Your task to perform on an android device: Go to Yahoo.com Image 0: 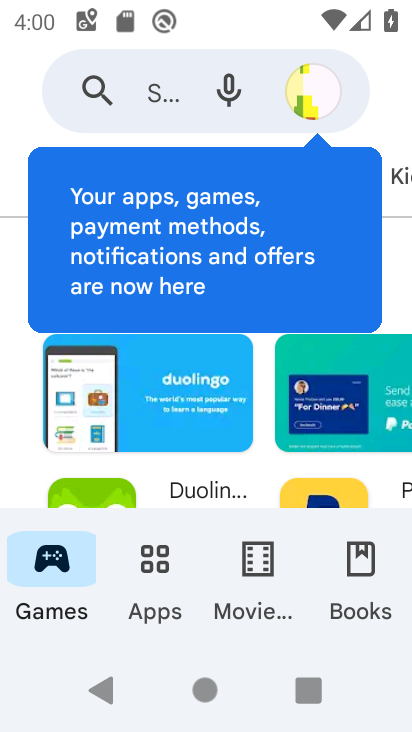
Step 0: press home button
Your task to perform on an android device: Go to Yahoo.com Image 1: 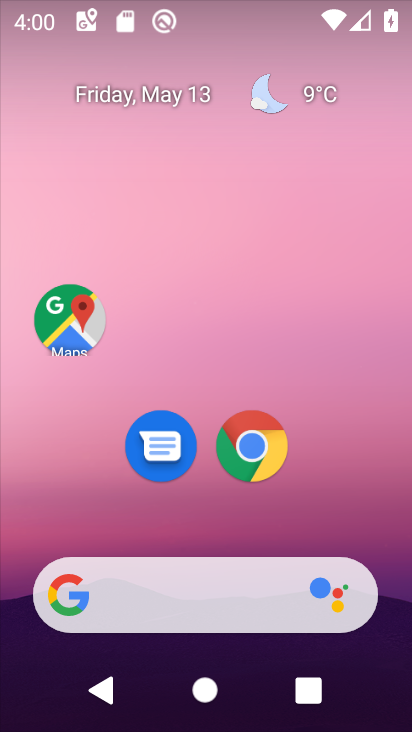
Step 1: click (266, 440)
Your task to perform on an android device: Go to Yahoo.com Image 2: 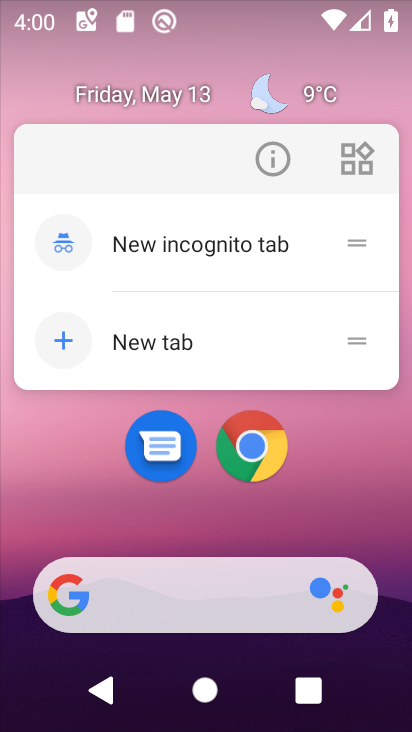
Step 2: click (232, 448)
Your task to perform on an android device: Go to Yahoo.com Image 3: 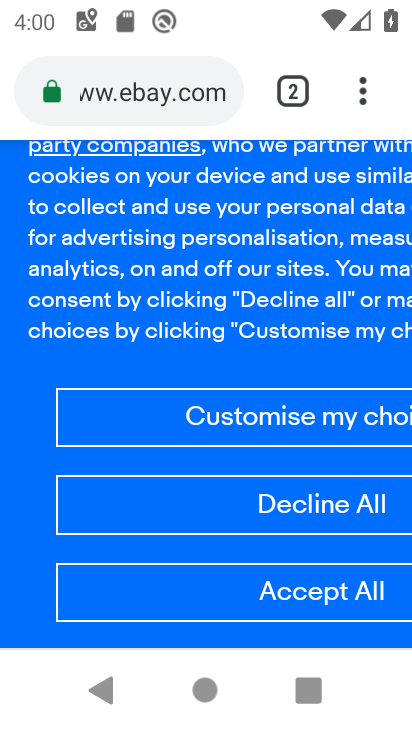
Step 3: click (131, 89)
Your task to perform on an android device: Go to Yahoo.com Image 4: 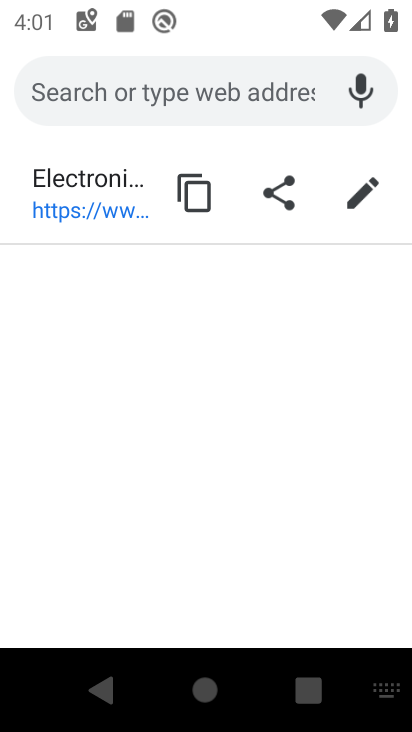
Step 4: type "yahoo.com"
Your task to perform on an android device: Go to Yahoo.com Image 5: 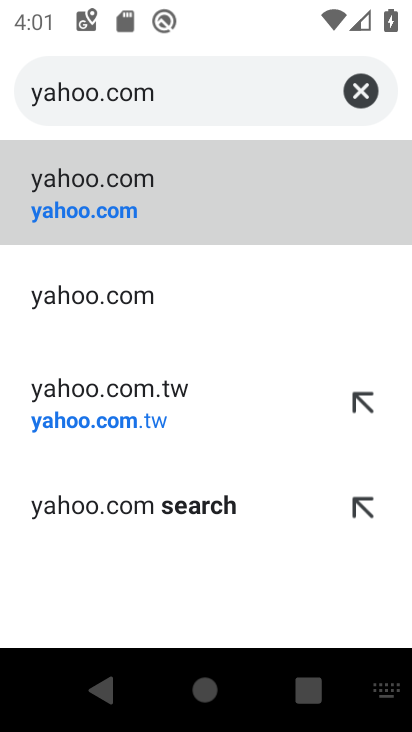
Step 5: click (57, 211)
Your task to perform on an android device: Go to Yahoo.com Image 6: 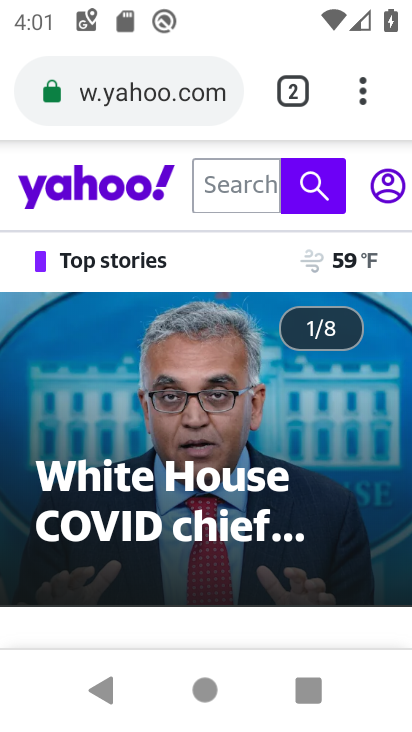
Step 6: task complete